Your task to perform on an android device: open the mobile data screen to see how much data has been used Image 0: 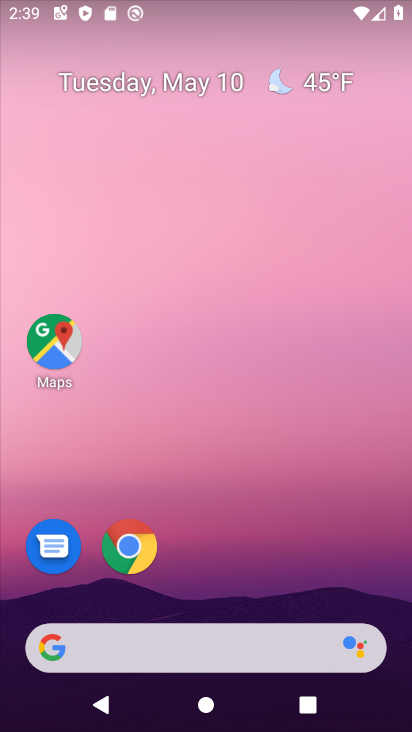
Step 0: drag from (229, 539) to (197, 14)
Your task to perform on an android device: open the mobile data screen to see how much data has been used Image 1: 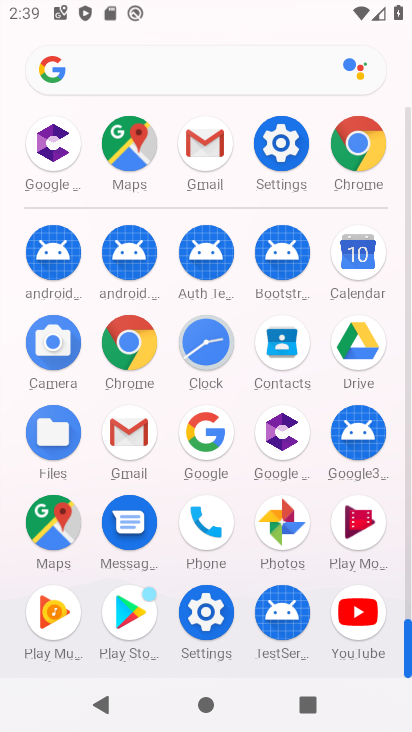
Step 1: drag from (0, 638) to (6, 284)
Your task to perform on an android device: open the mobile data screen to see how much data has been used Image 2: 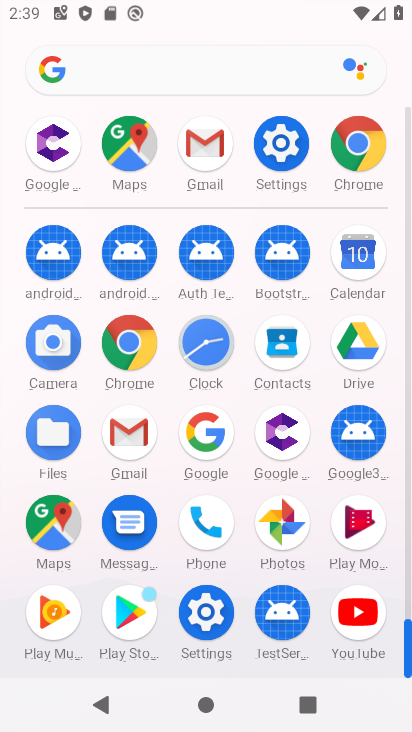
Step 2: click (202, 608)
Your task to perform on an android device: open the mobile data screen to see how much data has been used Image 3: 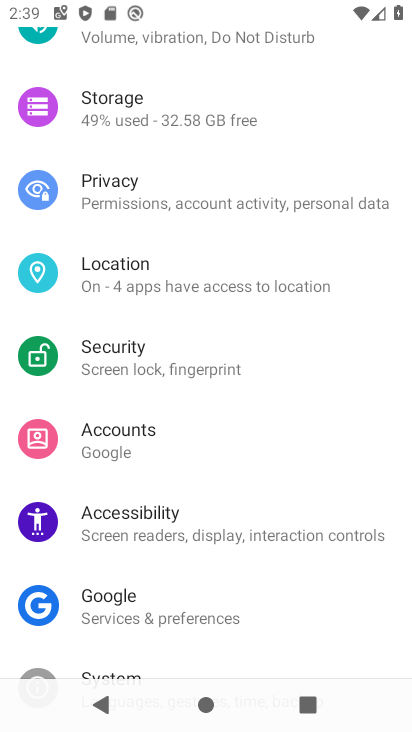
Step 3: drag from (203, 128) to (198, 532)
Your task to perform on an android device: open the mobile data screen to see how much data has been used Image 4: 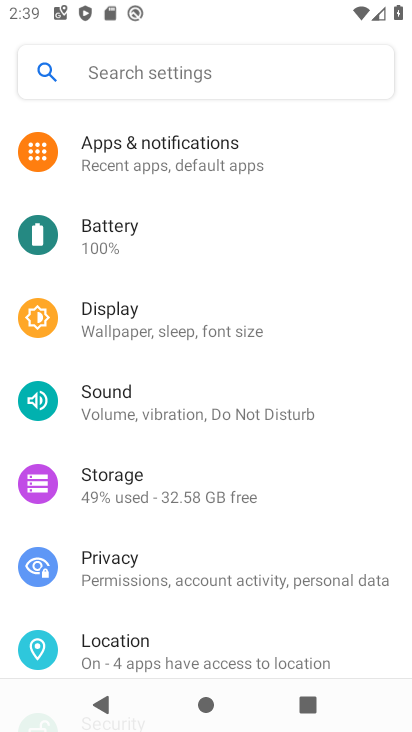
Step 4: drag from (205, 166) to (193, 500)
Your task to perform on an android device: open the mobile data screen to see how much data has been used Image 5: 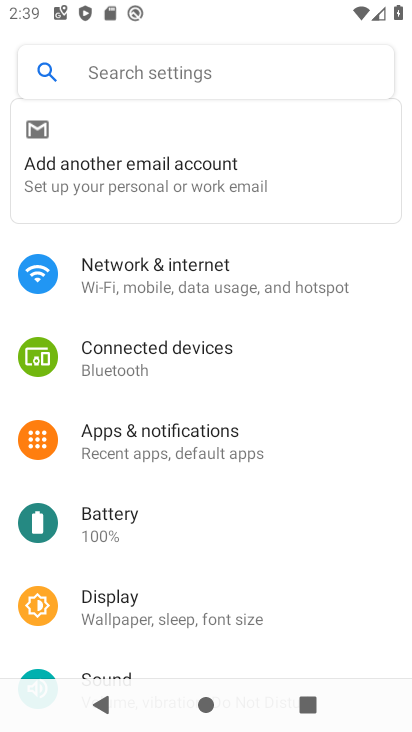
Step 5: click (212, 273)
Your task to perform on an android device: open the mobile data screen to see how much data has been used Image 6: 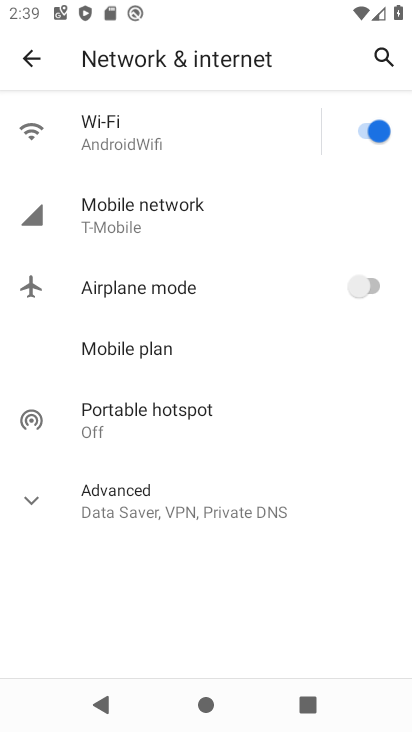
Step 6: click (182, 215)
Your task to perform on an android device: open the mobile data screen to see how much data has been used Image 7: 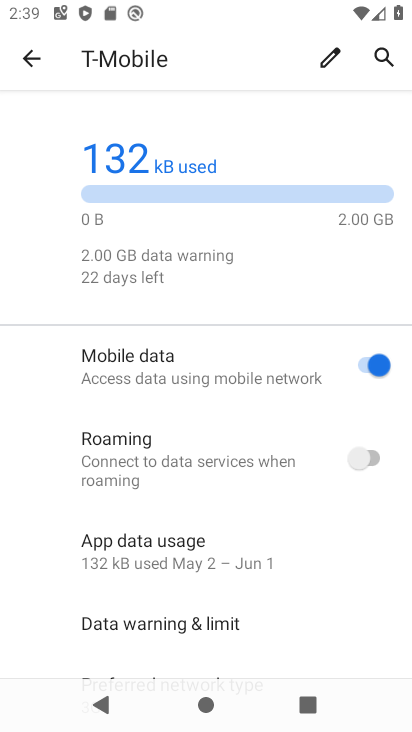
Step 7: task complete